Your task to perform on an android device: delete location history Image 0: 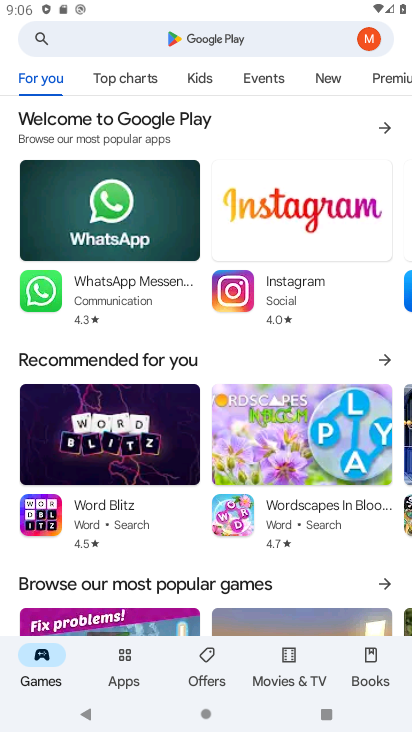
Step 0: press back button
Your task to perform on an android device: delete location history Image 1: 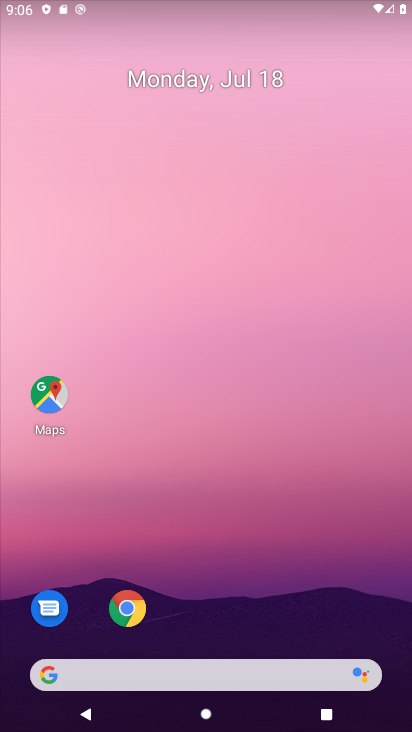
Step 1: drag from (289, 643) to (255, 168)
Your task to perform on an android device: delete location history Image 2: 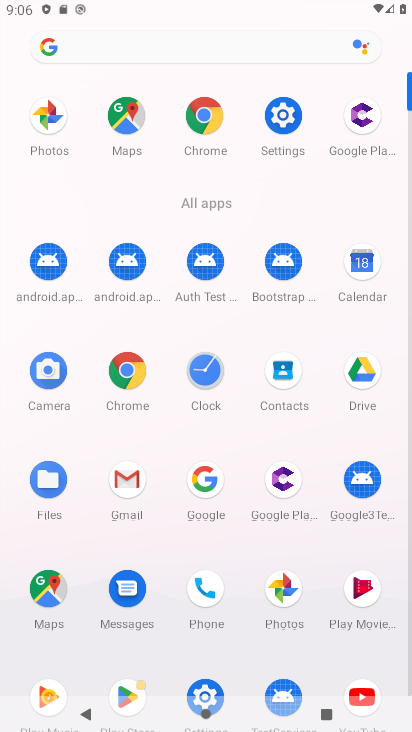
Step 2: click (289, 112)
Your task to perform on an android device: delete location history Image 3: 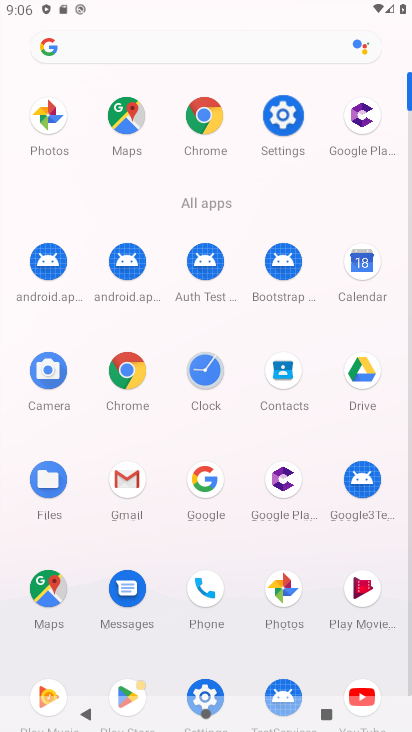
Step 3: click (289, 112)
Your task to perform on an android device: delete location history Image 4: 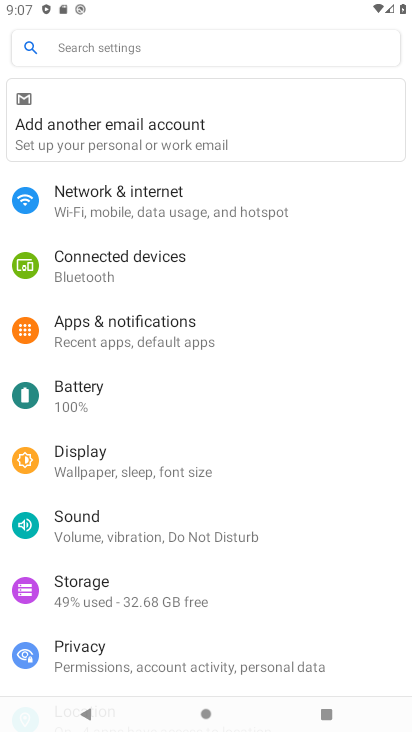
Step 4: drag from (111, 521) to (120, 318)
Your task to perform on an android device: delete location history Image 5: 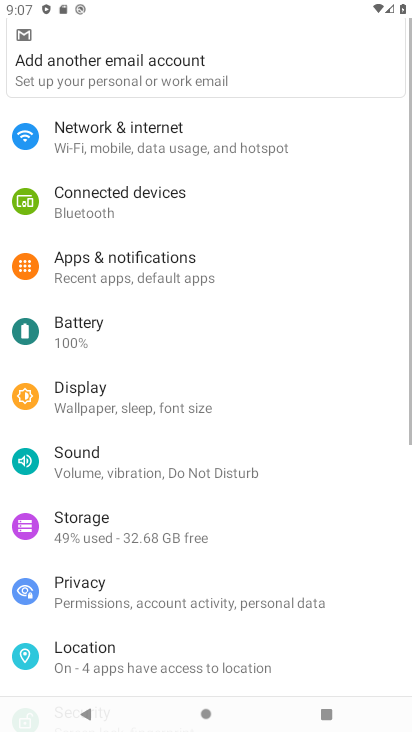
Step 5: click (123, 333)
Your task to perform on an android device: delete location history Image 6: 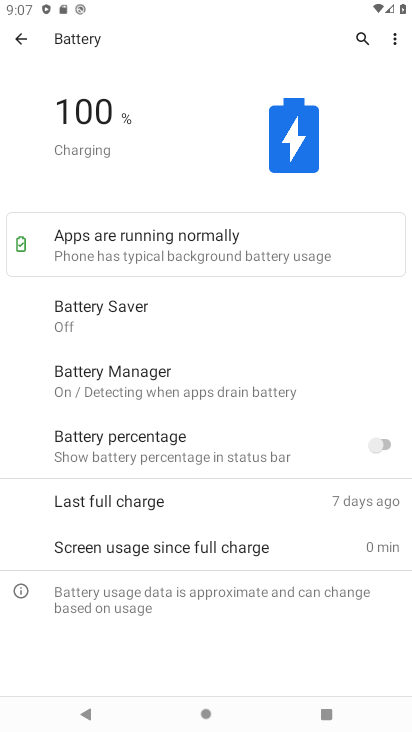
Step 6: press back button
Your task to perform on an android device: delete location history Image 7: 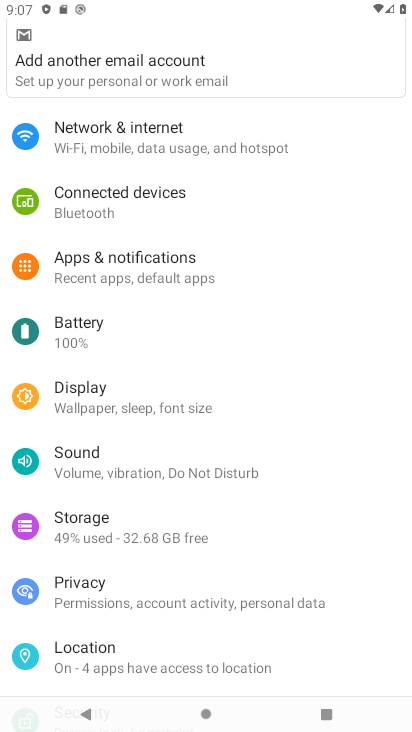
Step 7: drag from (131, 600) to (156, 242)
Your task to perform on an android device: delete location history Image 8: 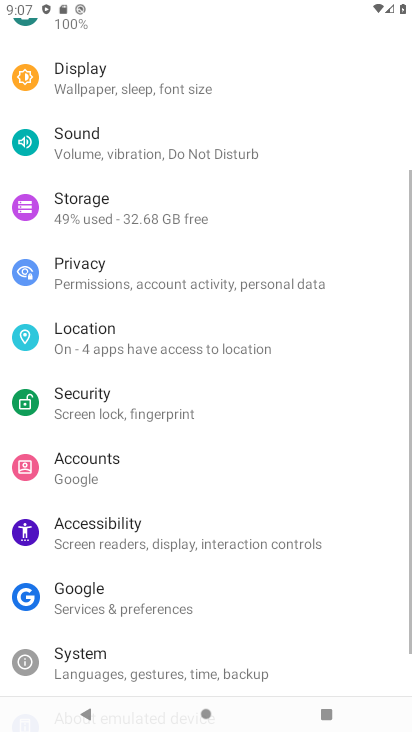
Step 8: drag from (189, 466) to (194, 284)
Your task to perform on an android device: delete location history Image 9: 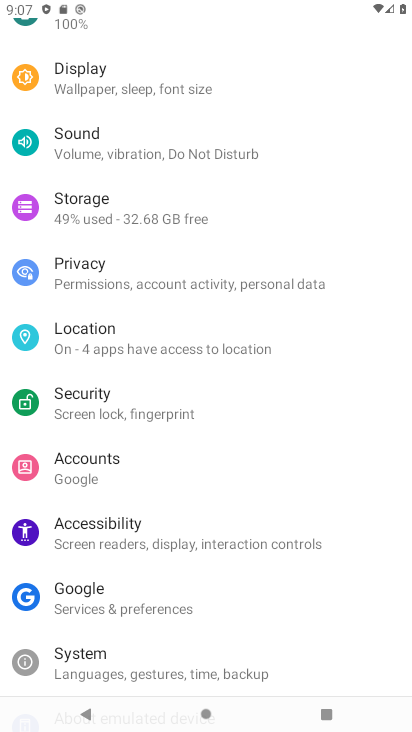
Step 9: click (93, 334)
Your task to perform on an android device: delete location history Image 10: 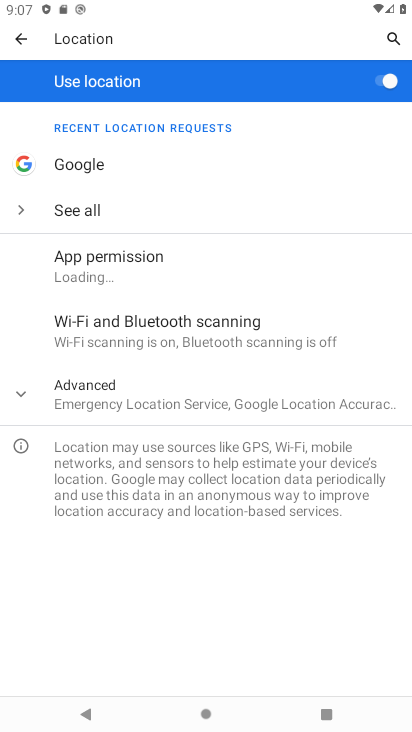
Step 10: click (93, 334)
Your task to perform on an android device: delete location history Image 11: 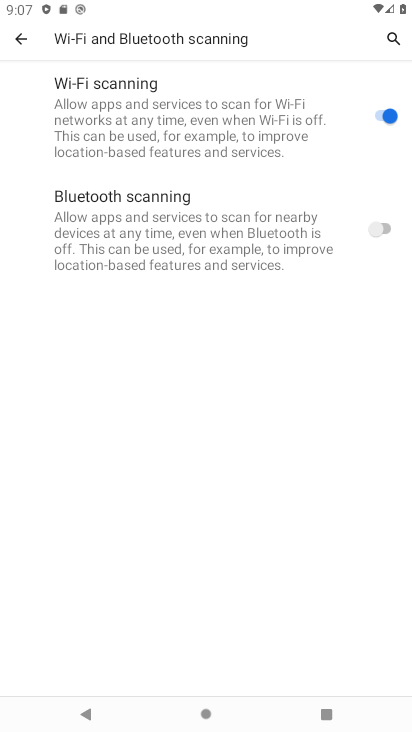
Step 11: click (122, 391)
Your task to perform on an android device: delete location history Image 12: 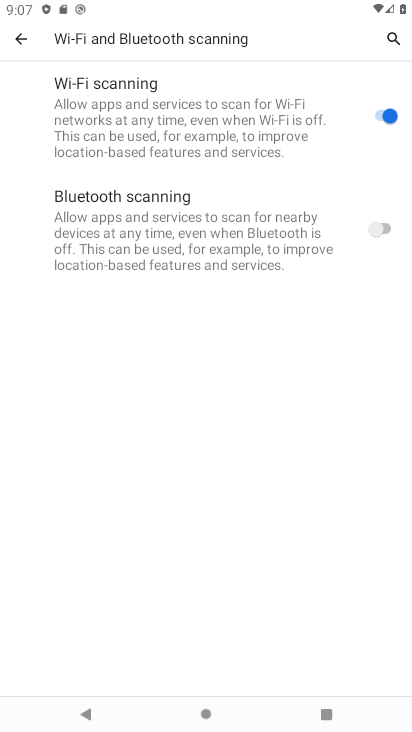
Step 12: click (24, 51)
Your task to perform on an android device: delete location history Image 13: 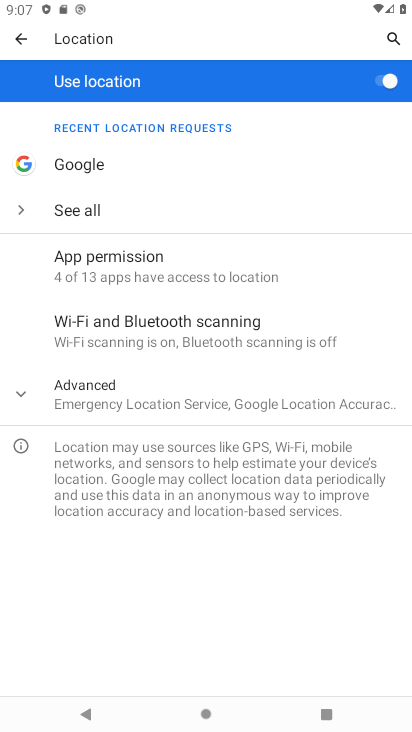
Step 13: click (107, 401)
Your task to perform on an android device: delete location history Image 14: 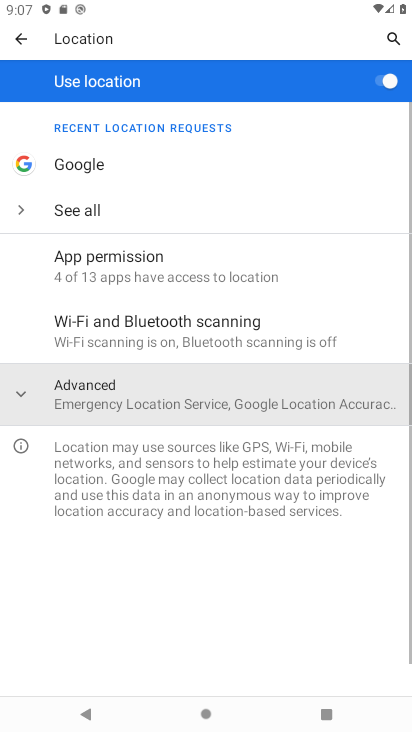
Step 14: click (107, 401)
Your task to perform on an android device: delete location history Image 15: 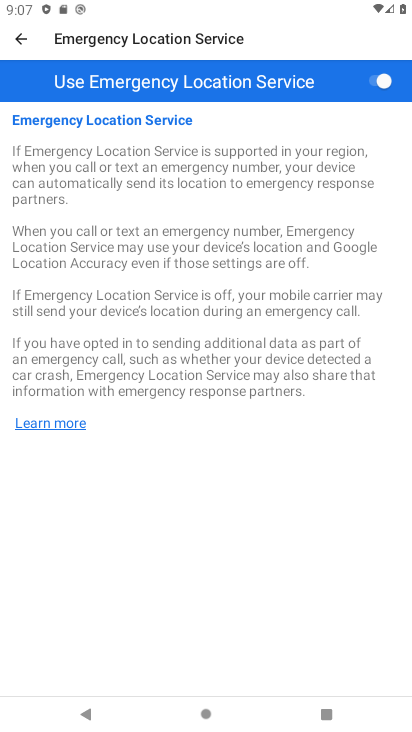
Step 15: click (16, 35)
Your task to perform on an android device: delete location history Image 16: 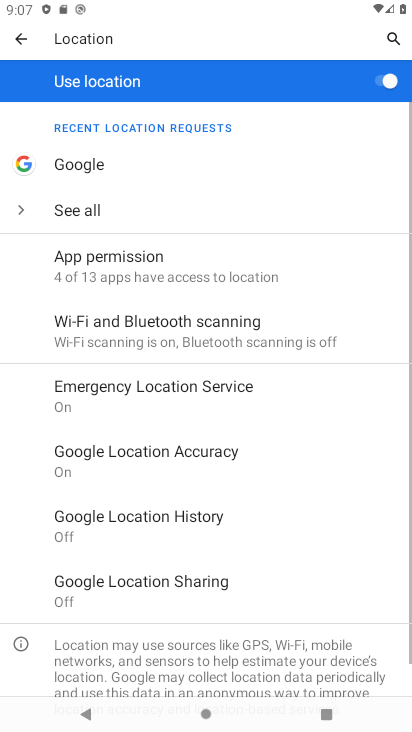
Step 16: click (171, 514)
Your task to perform on an android device: delete location history Image 17: 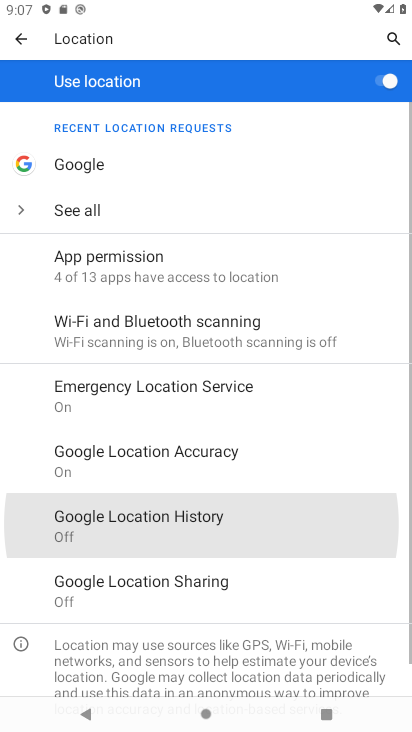
Step 17: click (170, 515)
Your task to perform on an android device: delete location history Image 18: 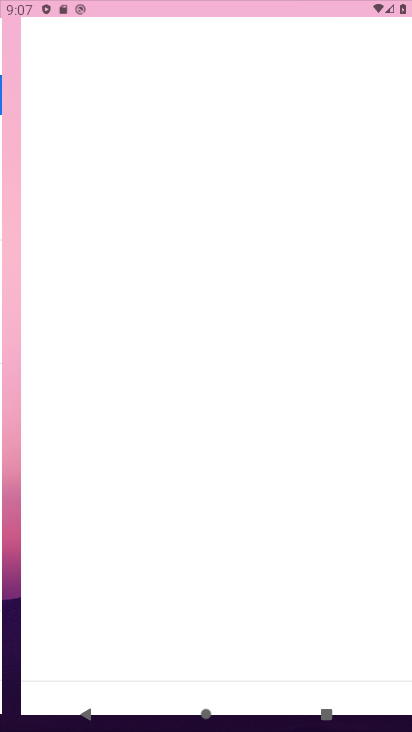
Step 18: click (170, 516)
Your task to perform on an android device: delete location history Image 19: 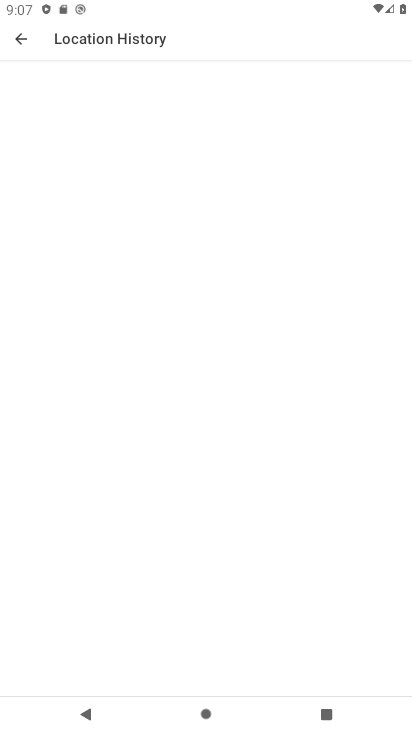
Step 19: click (170, 517)
Your task to perform on an android device: delete location history Image 20: 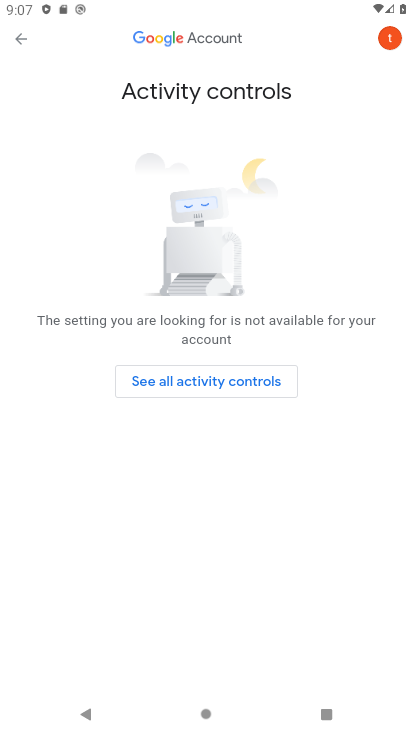
Step 20: task complete